Your task to perform on an android device: Open calendar and show me the first week of next month Image 0: 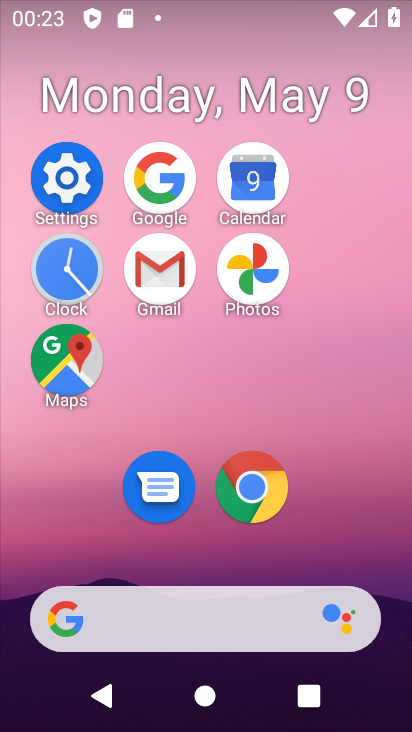
Step 0: click (249, 196)
Your task to perform on an android device: Open calendar and show me the first week of next month Image 1: 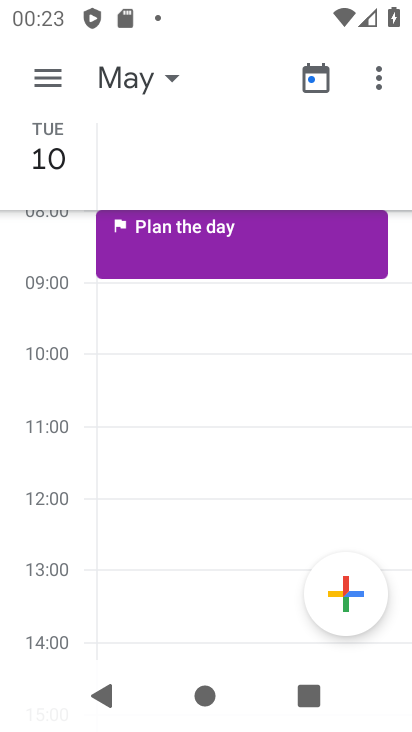
Step 1: click (43, 85)
Your task to perform on an android device: Open calendar and show me the first week of next month Image 2: 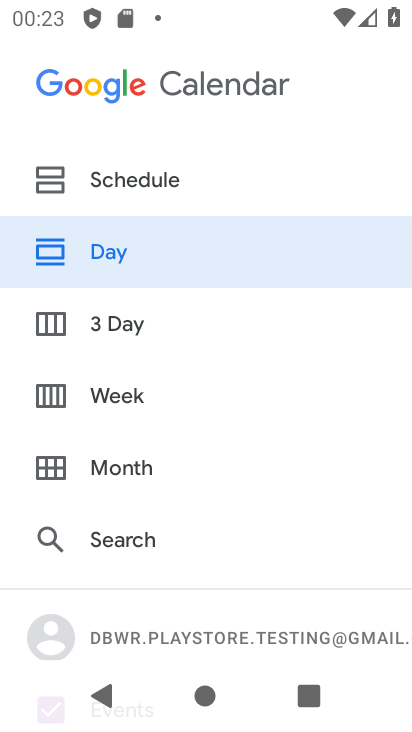
Step 2: click (138, 392)
Your task to perform on an android device: Open calendar and show me the first week of next month Image 3: 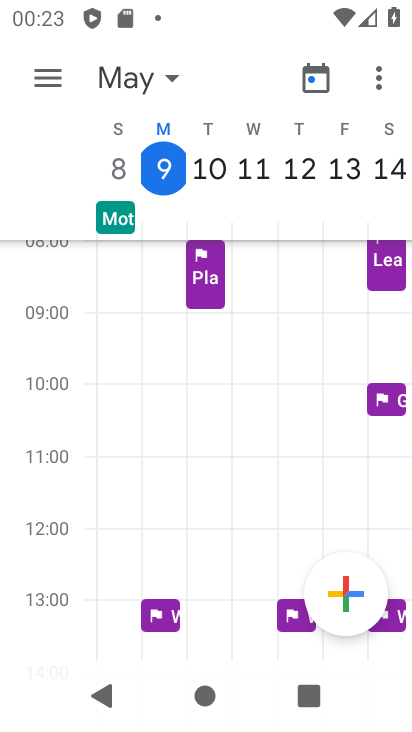
Step 3: click (155, 73)
Your task to perform on an android device: Open calendar and show me the first week of next month Image 4: 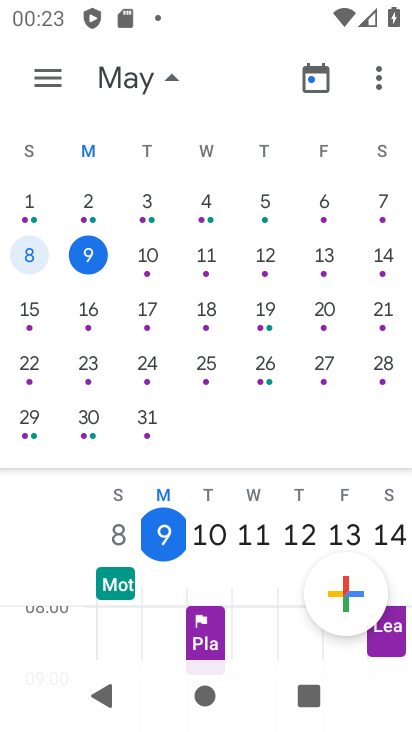
Step 4: drag from (395, 290) to (15, 174)
Your task to perform on an android device: Open calendar and show me the first week of next month Image 5: 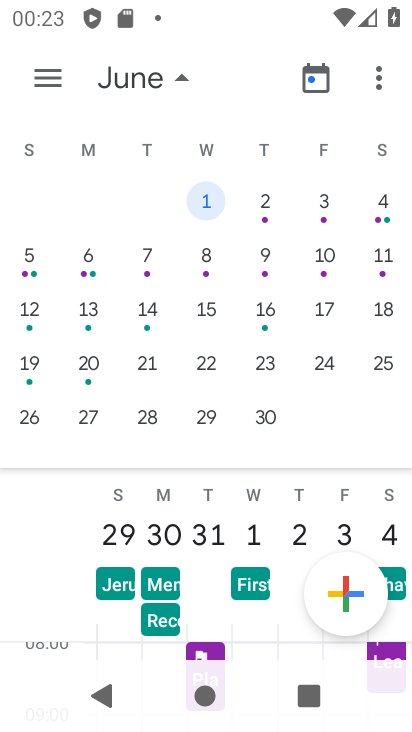
Step 5: click (53, 78)
Your task to perform on an android device: Open calendar and show me the first week of next month Image 6: 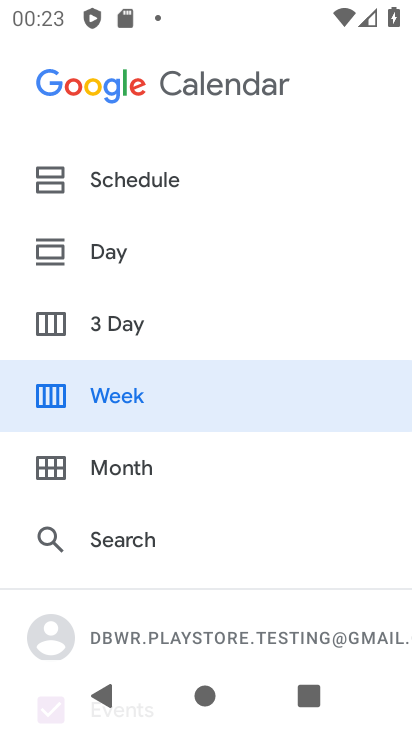
Step 6: click (135, 386)
Your task to perform on an android device: Open calendar and show me the first week of next month Image 7: 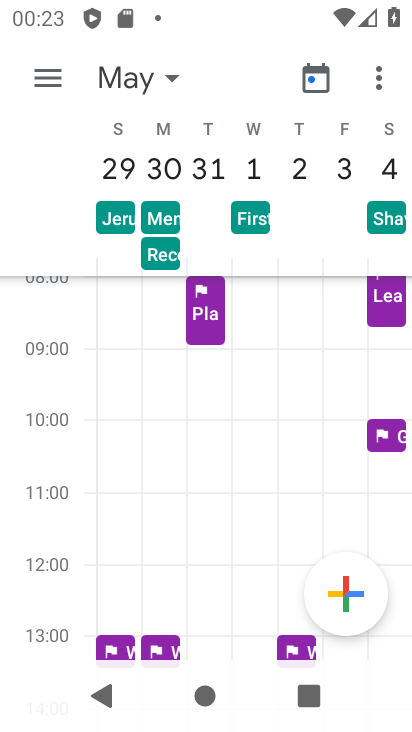
Step 7: drag from (390, 161) to (92, 143)
Your task to perform on an android device: Open calendar and show me the first week of next month Image 8: 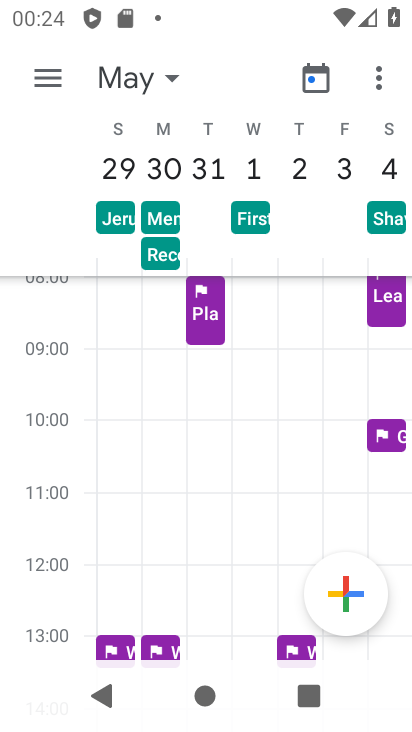
Step 8: click (167, 82)
Your task to perform on an android device: Open calendar and show me the first week of next month Image 9: 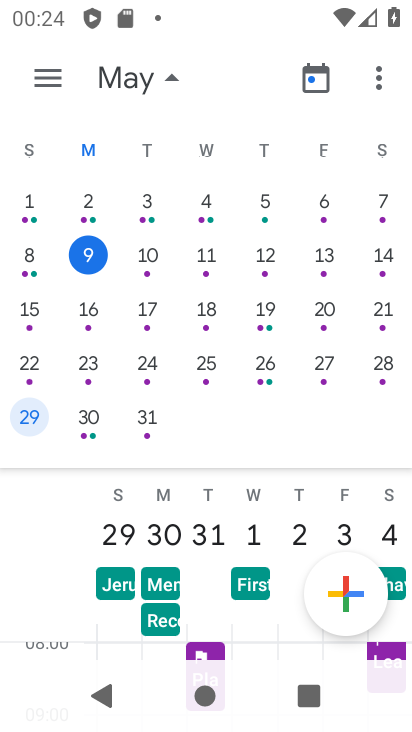
Step 9: drag from (372, 280) to (2, 293)
Your task to perform on an android device: Open calendar and show me the first week of next month Image 10: 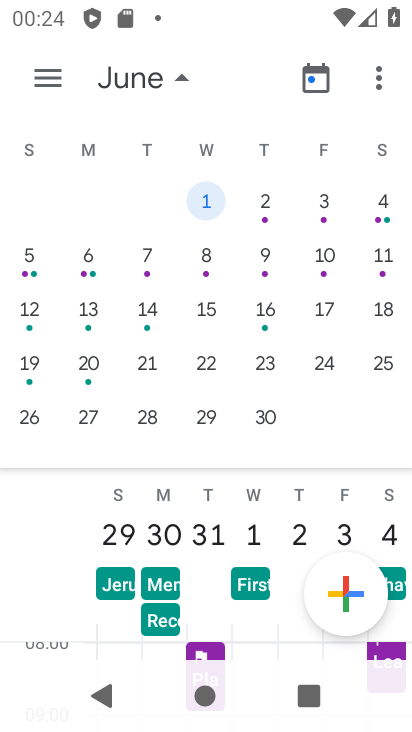
Step 10: click (43, 79)
Your task to perform on an android device: Open calendar and show me the first week of next month Image 11: 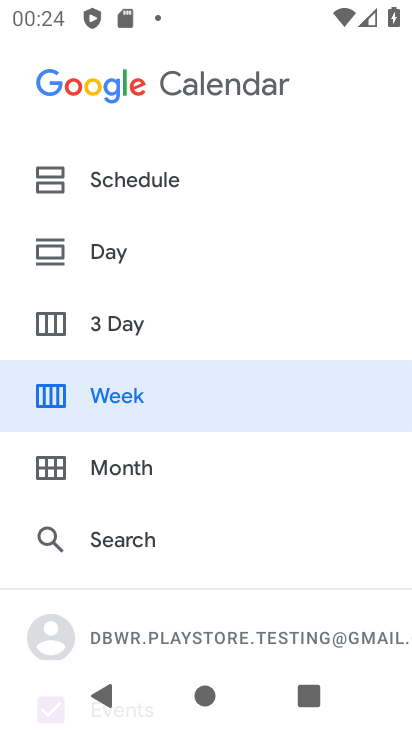
Step 11: click (169, 404)
Your task to perform on an android device: Open calendar and show me the first week of next month Image 12: 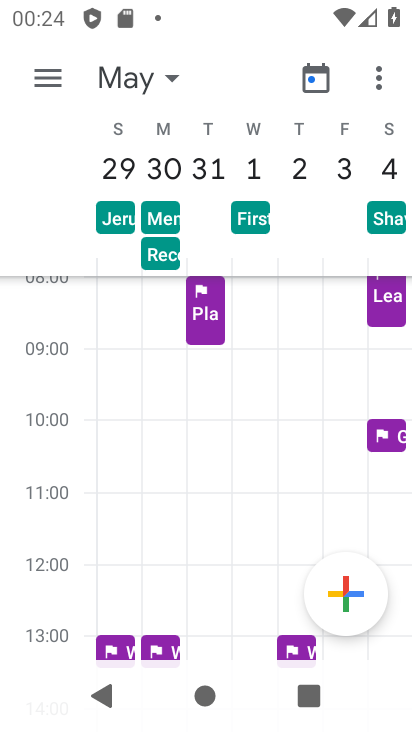
Step 12: task complete